Your task to perform on an android device: Turn off the flashlight Image 0: 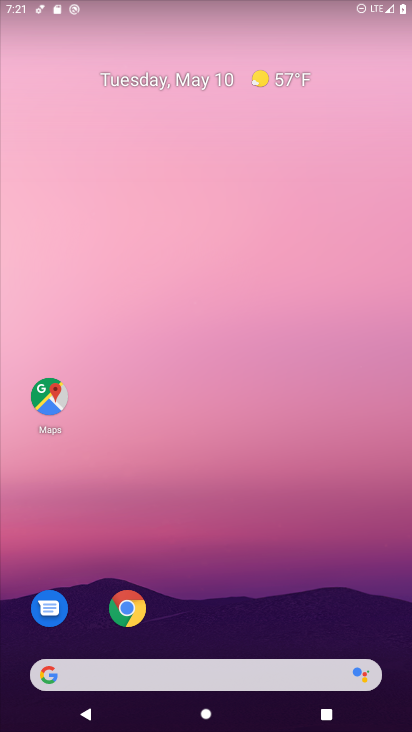
Step 0: drag from (375, 632) to (275, 59)
Your task to perform on an android device: Turn off the flashlight Image 1: 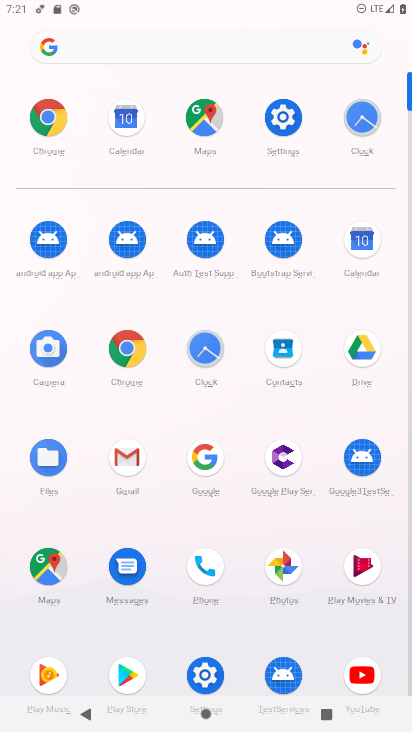
Step 1: click (209, 672)
Your task to perform on an android device: Turn off the flashlight Image 2: 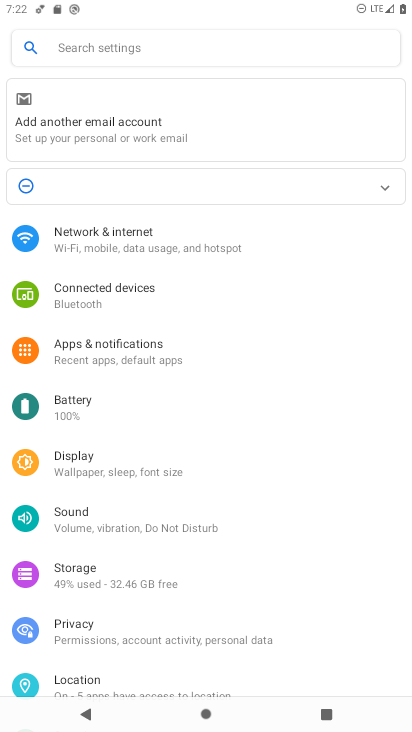
Step 2: task complete